Your task to perform on an android device: Go to Google Image 0: 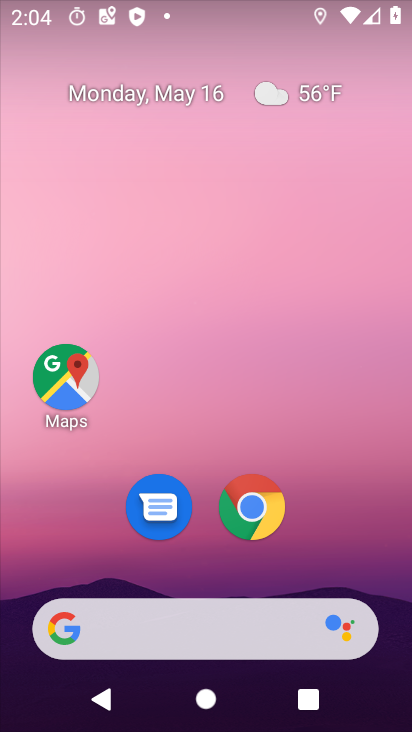
Step 0: drag from (206, 574) to (153, 86)
Your task to perform on an android device: Go to Google Image 1: 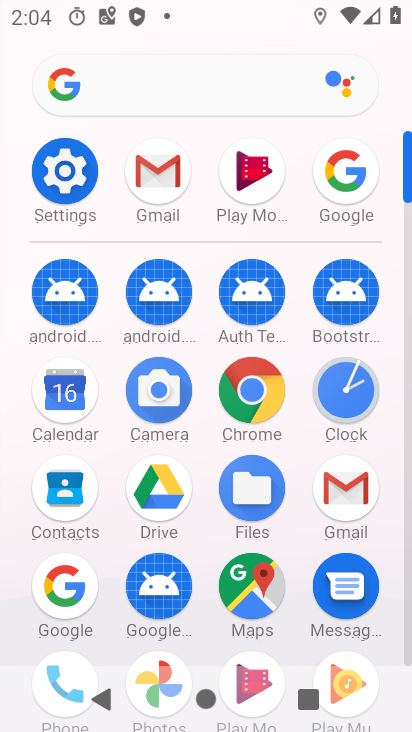
Step 1: click (65, 585)
Your task to perform on an android device: Go to Google Image 2: 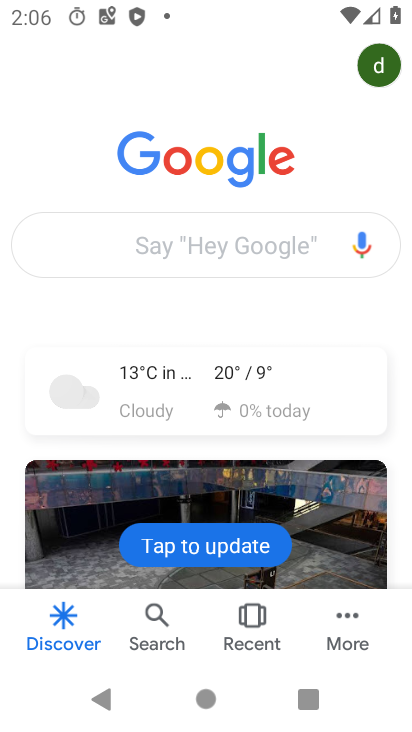
Step 2: task complete